Your task to perform on an android device: Go to Amazon Image 0: 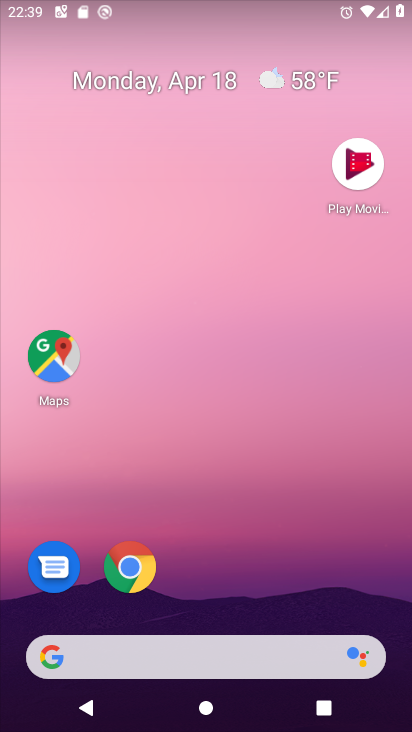
Step 0: drag from (199, 614) to (191, 151)
Your task to perform on an android device: Go to Amazon Image 1: 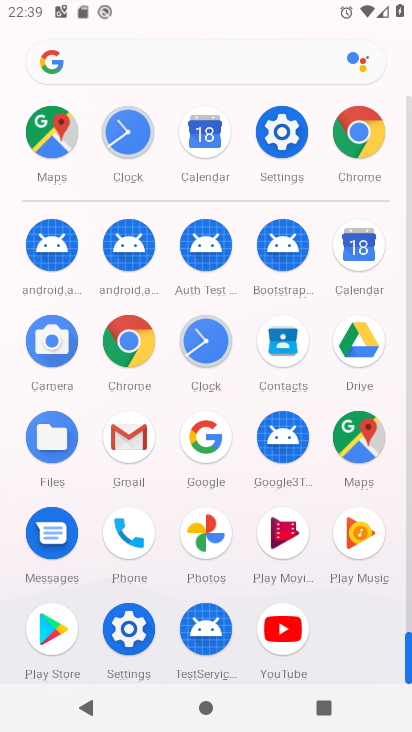
Step 1: click (125, 333)
Your task to perform on an android device: Go to Amazon Image 2: 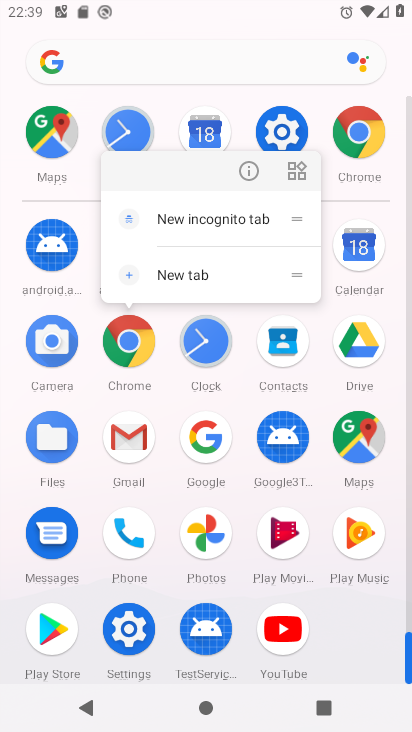
Step 2: click (245, 163)
Your task to perform on an android device: Go to Amazon Image 3: 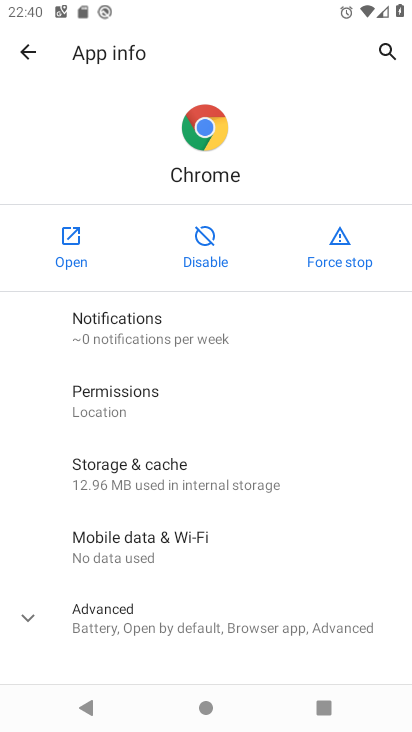
Step 3: click (73, 234)
Your task to perform on an android device: Go to Amazon Image 4: 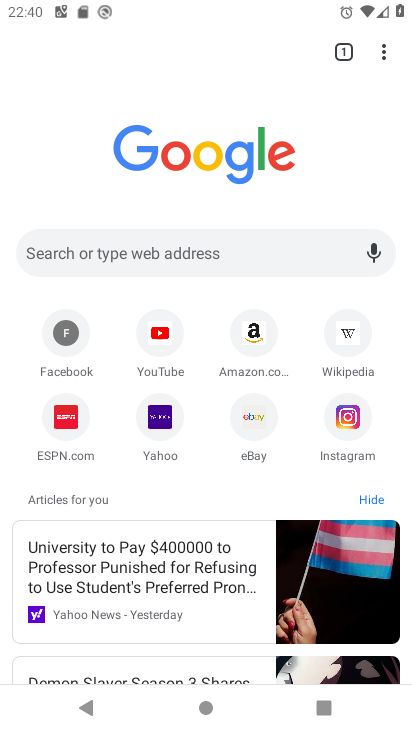
Step 4: click (254, 322)
Your task to perform on an android device: Go to Amazon Image 5: 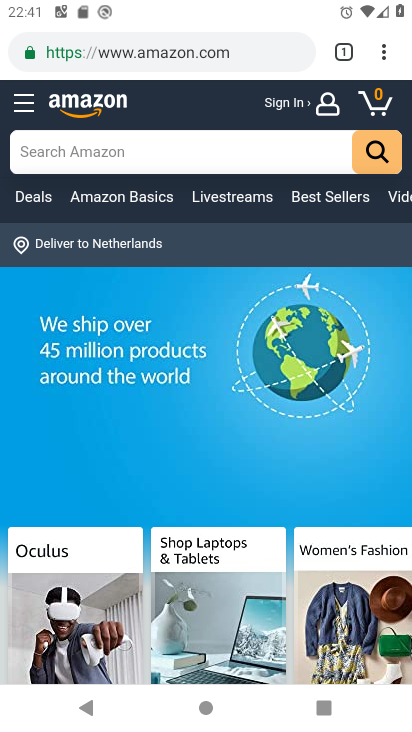
Step 5: task complete